Your task to perform on an android device: Search for Italian restaurants on Maps Image 0: 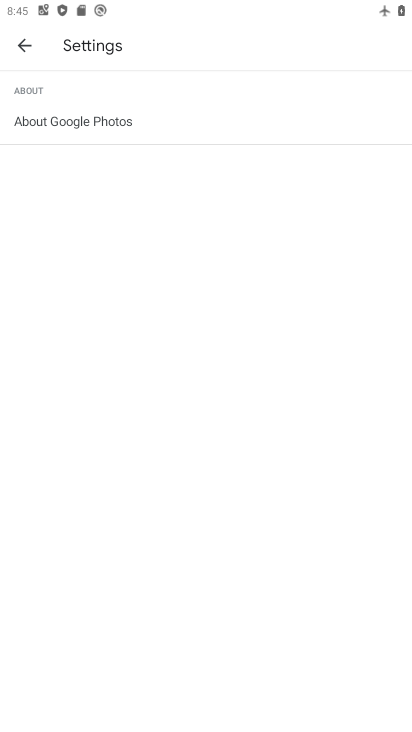
Step 0: press home button
Your task to perform on an android device: Search for Italian restaurants on Maps Image 1: 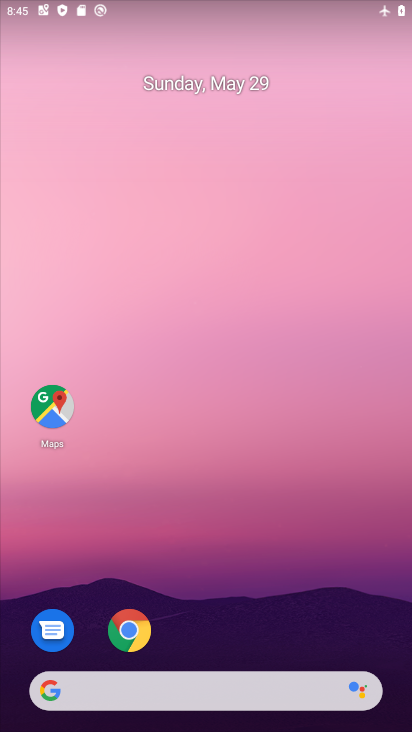
Step 1: click (62, 404)
Your task to perform on an android device: Search for Italian restaurants on Maps Image 2: 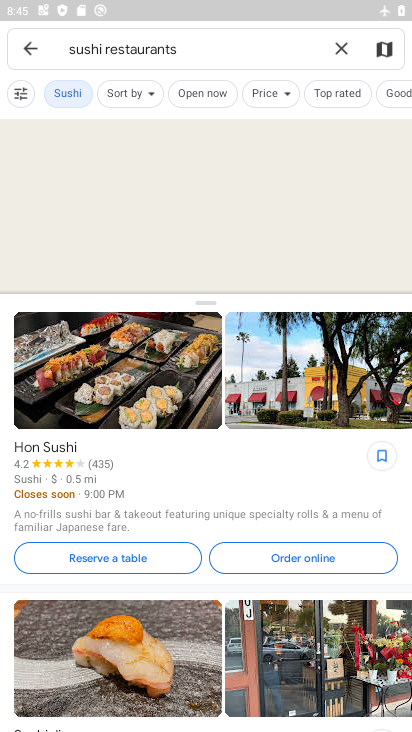
Step 2: click (340, 47)
Your task to perform on an android device: Search for Italian restaurants on Maps Image 3: 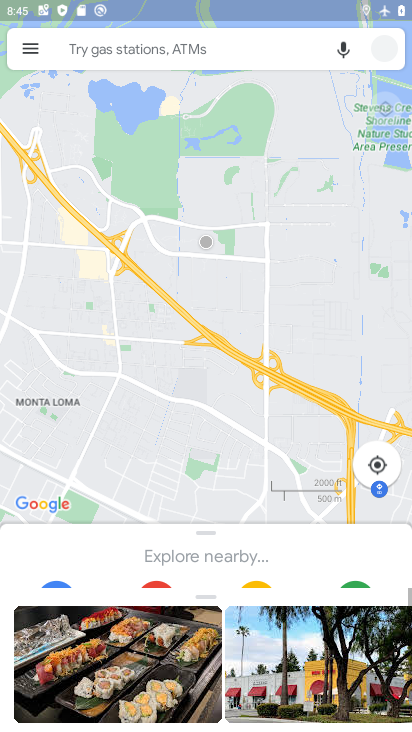
Step 3: click (246, 52)
Your task to perform on an android device: Search for Italian restaurants on Maps Image 4: 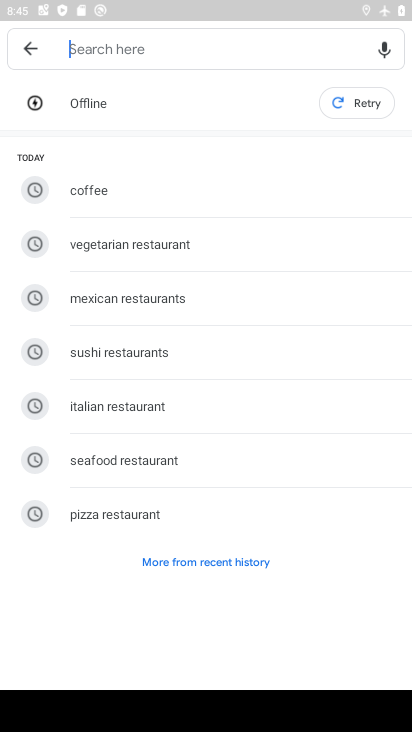
Step 4: click (110, 401)
Your task to perform on an android device: Search for Italian restaurants on Maps Image 5: 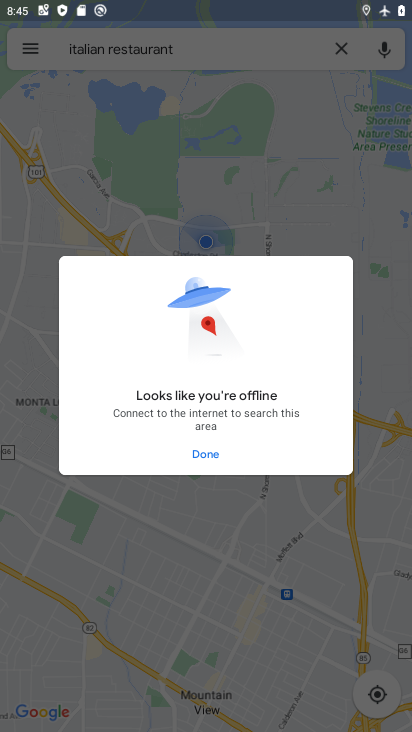
Step 5: task complete